Your task to perform on an android device: toggle pop-ups in chrome Image 0: 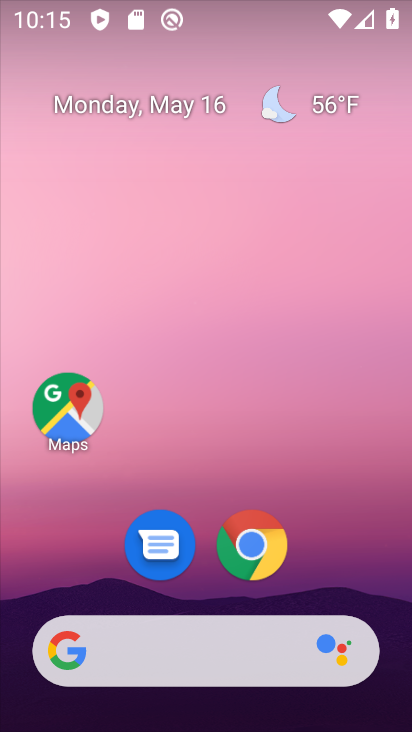
Step 0: click (249, 561)
Your task to perform on an android device: toggle pop-ups in chrome Image 1: 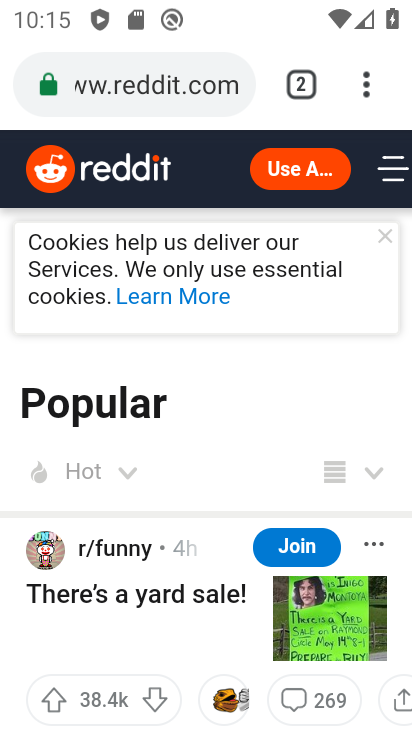
Step 1: click (366, 87)
Your task to perform on an android device: toggle pop-ups in chrome Image 2: 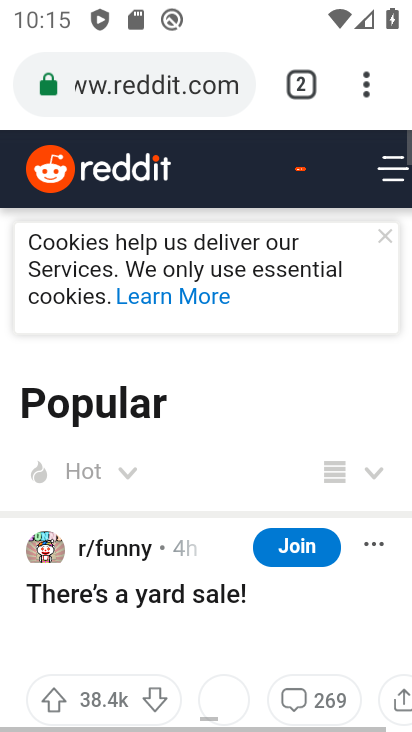
Step 2: drag from (363, 89) to (142, 600)
Your task to perform on an android device: toggle pop-ups in chrome Image 3: 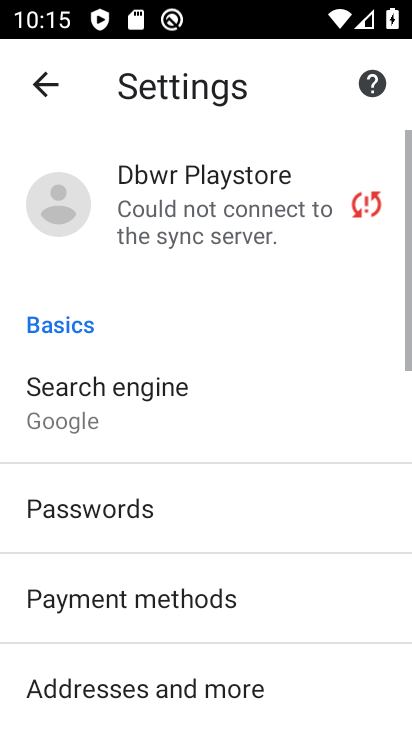
Step 3: drag from (141, 600) to (80, 133)
Your task to perform on an android device: toggle pop-ups in chrome Image 4: 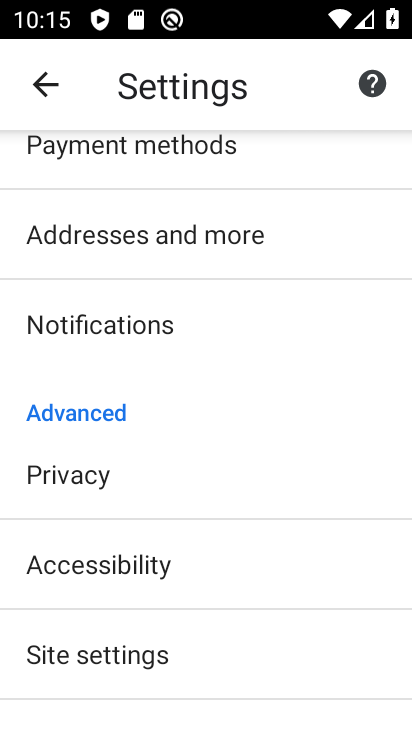
Step 4: click (61, 654)
Your task to perform on an android device: toggle pop-ups in chrome Image 5: 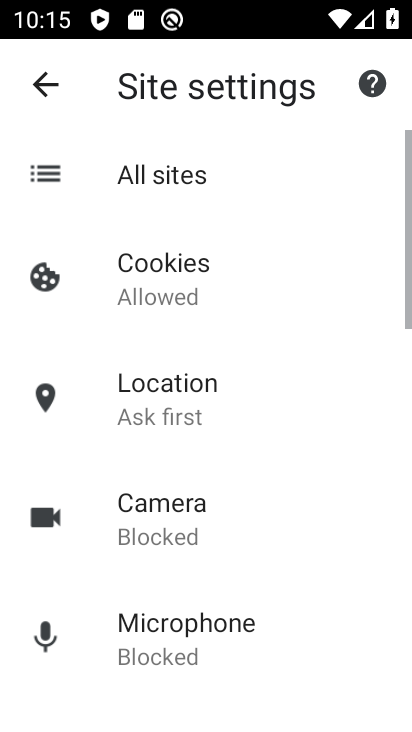
Step 5: drag from (71, 645) to (35, 249)
Your task to perform on an android device: toggle pop-ups in chrome Image 6: 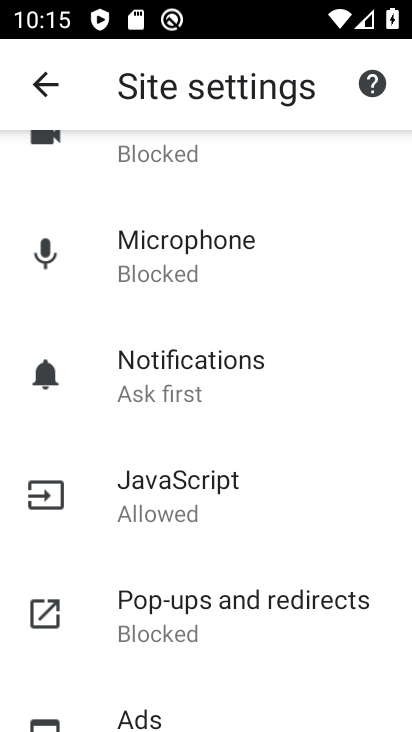
Step 6: click (151, 599)
Your task to perform on an android device: toggle pop-ups in chrome Image 7: 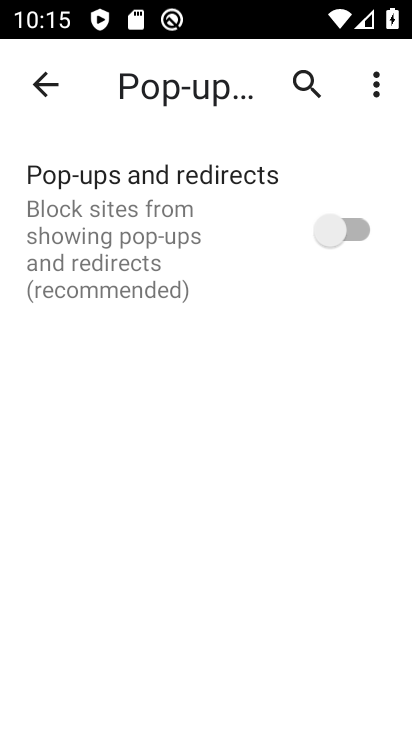
Step 7: click (342, 221)
Your task to perform on an android device: toggle pop-ups in chrome Image 8: 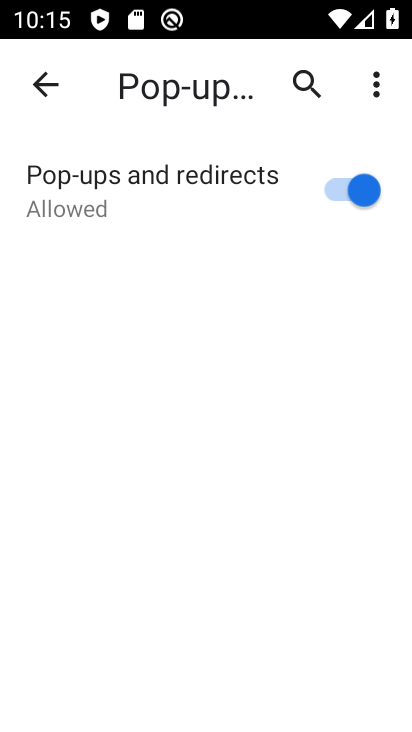
Step 8: task complete